Your task to perform on an android device: change the upload size in google photos Image 0: 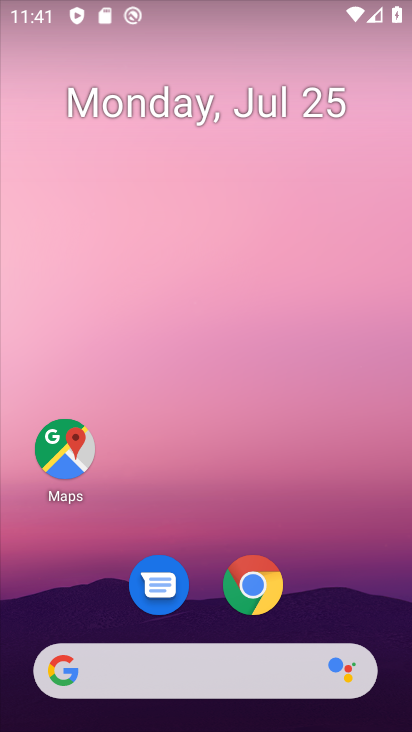
Step 0: drag from (312, 595) to (309, 11)
Your task to perform on an android device: change the upload size in google photos Image 1: 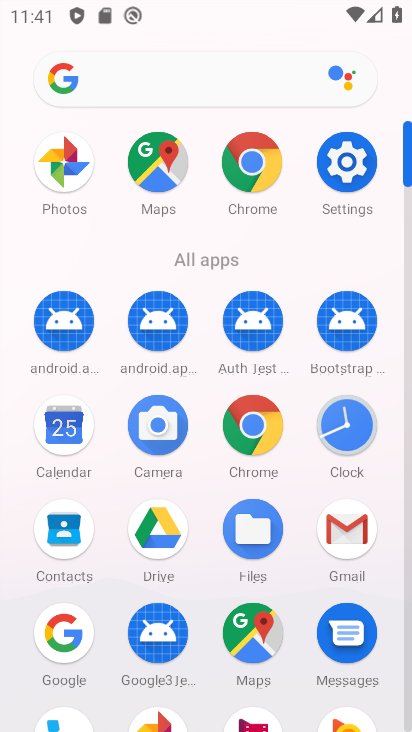
Step 1: click (73, 155)
Your task to perform on an android device: change the upload size in google photos Image 2: 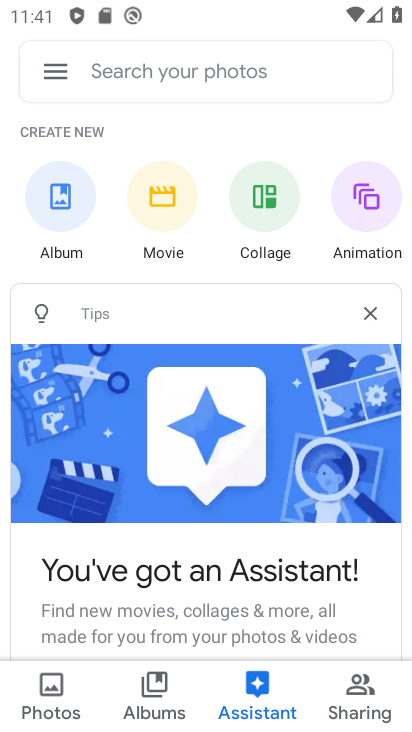
Step 2: click (61, 73)
Your task to perform on an android device: change the upload size in google photos Image 3: 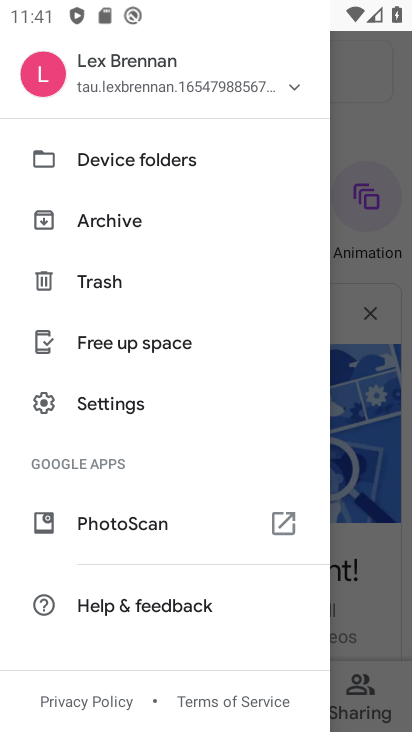
Step 3: click (92, 395)
Your task to perform on an android device: change the upload size in google photos Image 4: 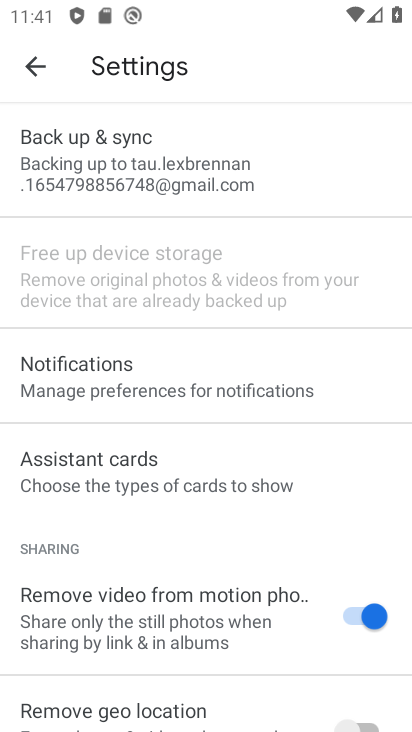
Step 4: click (137, 170)
Your task to perform on an android device: change the upload size in google photos Image 5: 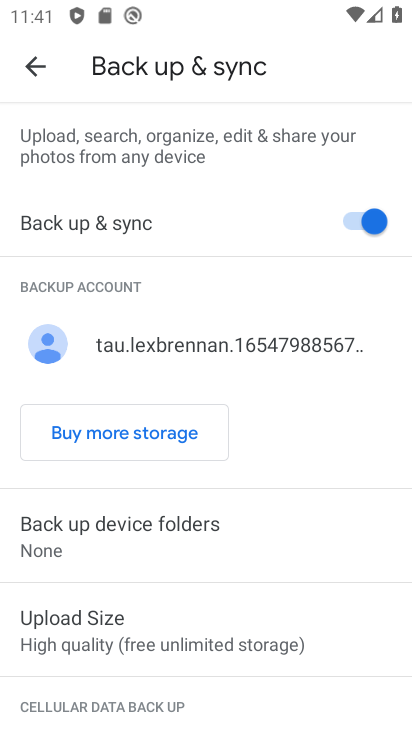
Step 5: click (144, 625)
Your task to perform on an android device: change the upload size in google photos Image 6: 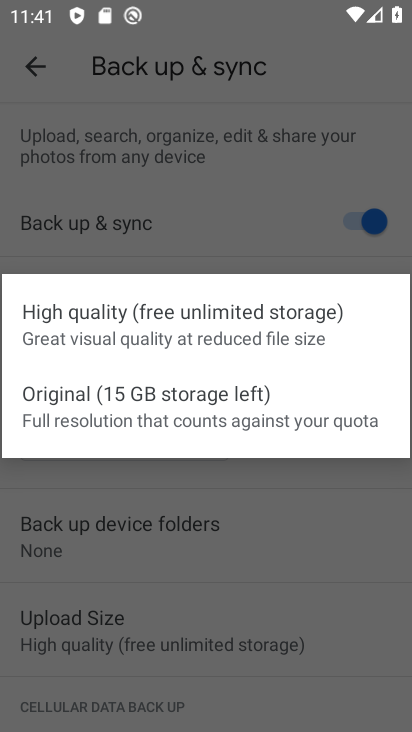
Step 6: click (195, 409)
Your task to perform on an android device: change the upload size in google photos Image 7: 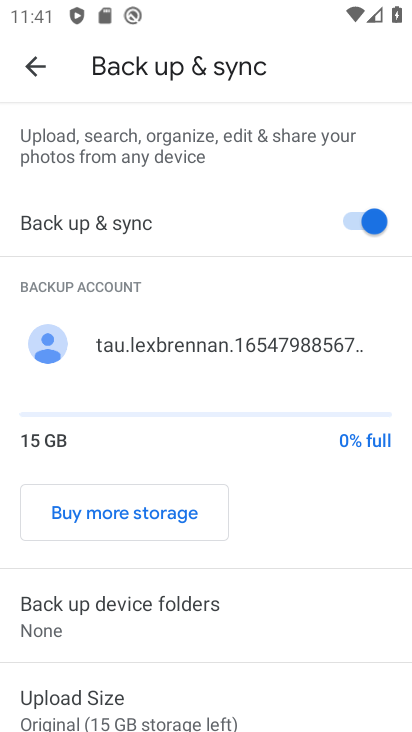
Step 7: task complete